Your task to perform on an android device: star an email in the gmail app Image 0: 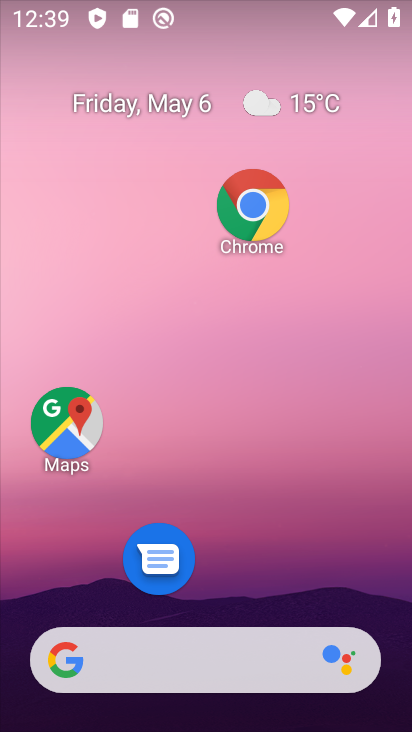
Step 0: drag from (214, 597) to (190, 23)
Your task to perform on an android device: star an email in the gmail app Image 1: 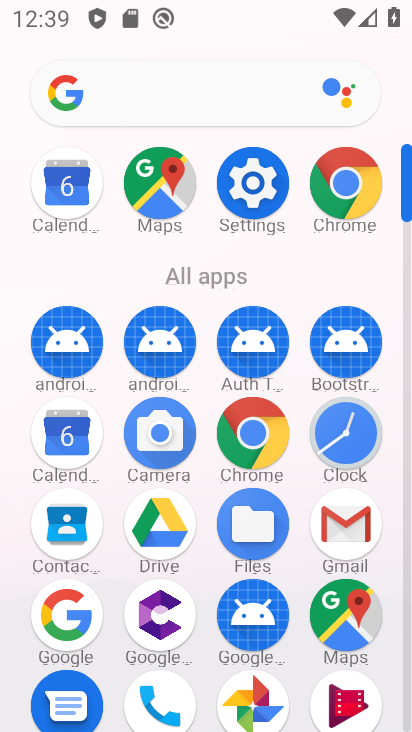
Step 1: click (340, 503)
Your task to perform on an android device: star an email in the gmail app Image 2: 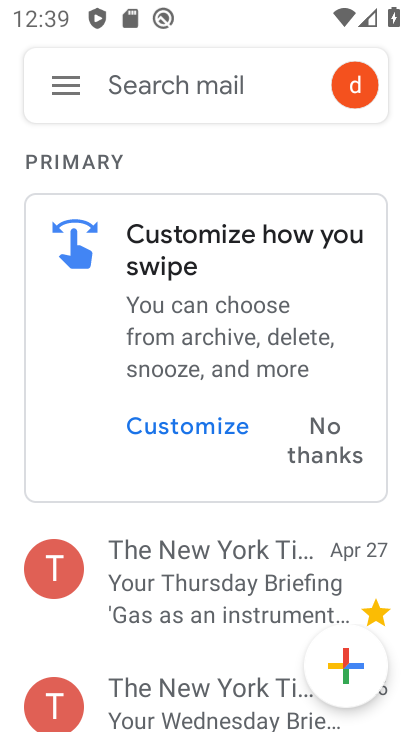
Step 2: drag from (263, 662) to (259, 180)
Your task to perform on an android device: star an email in the gmail app Image 3: 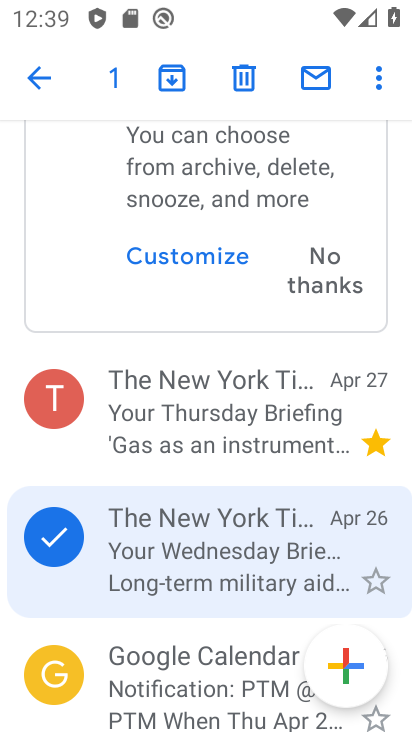
Step 3: click (378, 589)
Your task to perform on an android device: star an email in the gmail app Image 4: 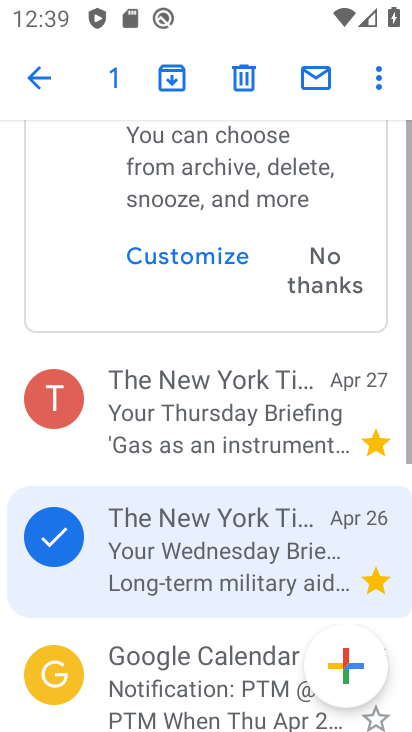
Step 4: task complete